Your task to perform on an android device: Go to settings Image 0: 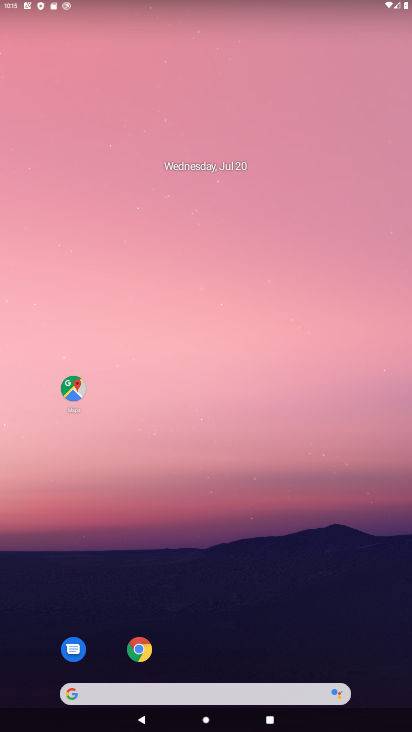
Step 0: drag from (276, 671) to (252, 133)
Your task to perform on an android device: Go to settings Image 1: 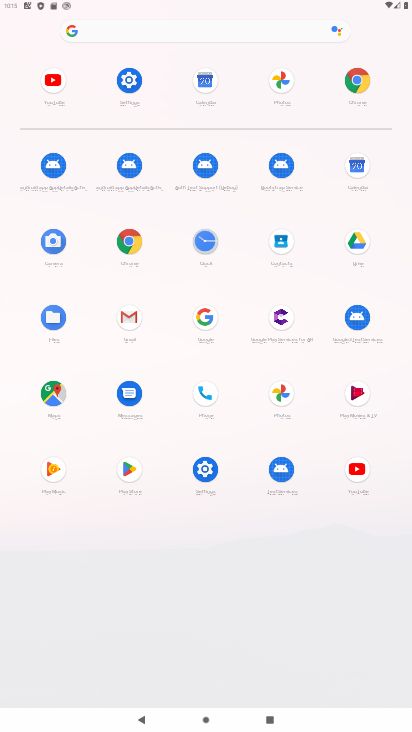
Step 1: click (143, 107)
Your task to perform on an android device: Go to settings Image 2: 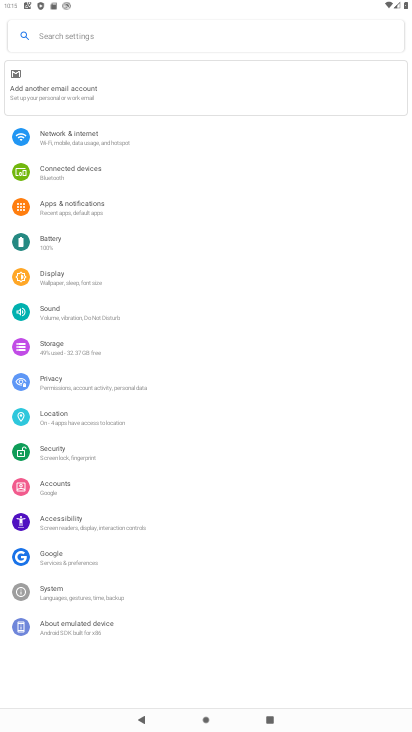
Step 2: task complete